Your task to perform on an android device: Is it going to rain today? Image 0: 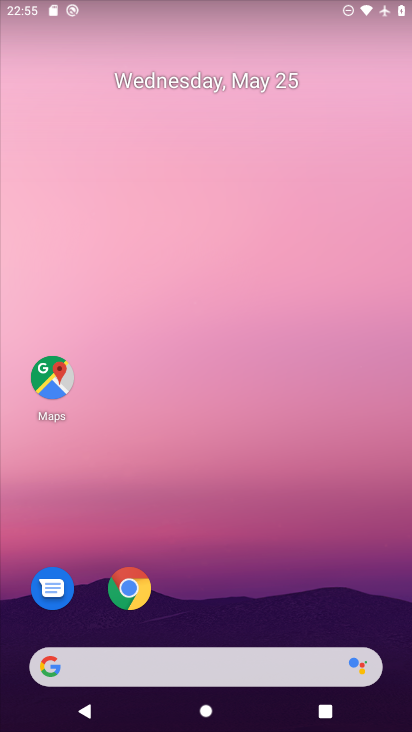
Step 0: drag from (284, 385) to (300, 171)
Your task to perform on an android device: Is it going to rain today? Image 1: 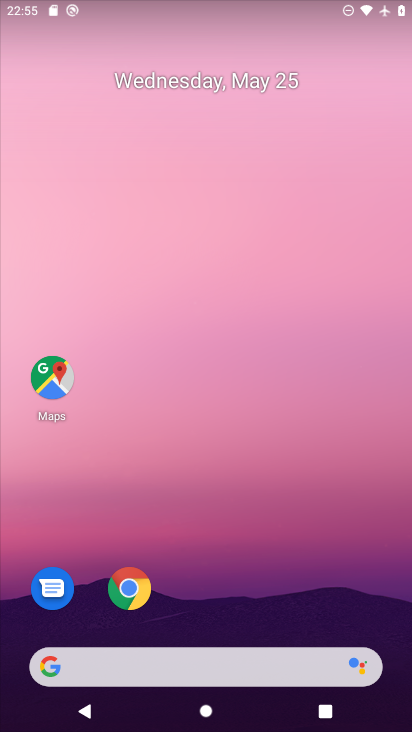
Step 1: drag from (226, 599) to (220, 82)
Your task to perform on an android device: Is it going to rain today? Image 2: 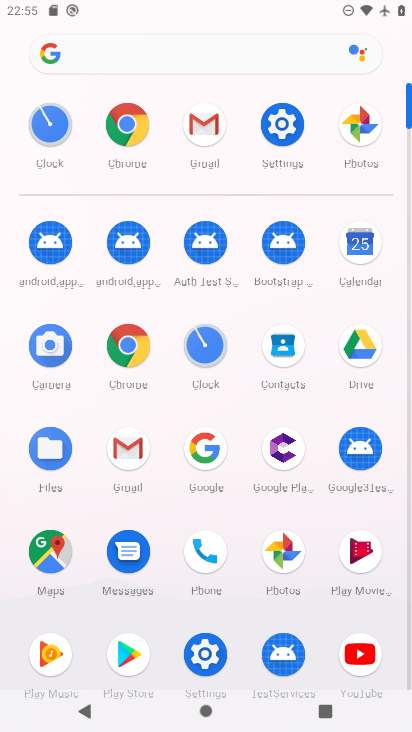
Step 2: click (124, 347)
Your task to perform on an android device: Is it going to rain today? Image 3: 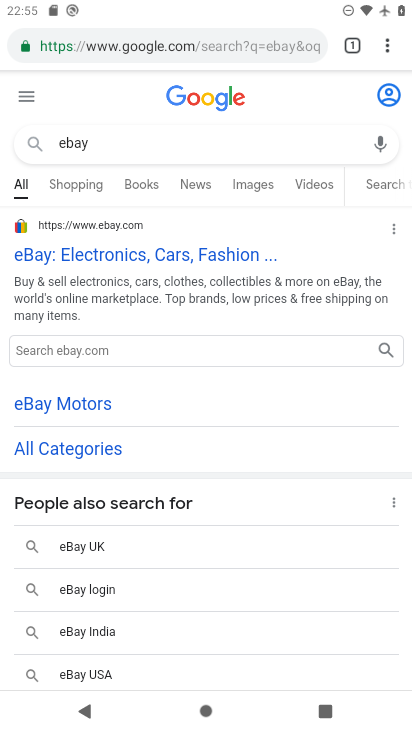
Step 3: click (123, 45)
Your task to perform on an android device: Is it going to rain today? Image 4: 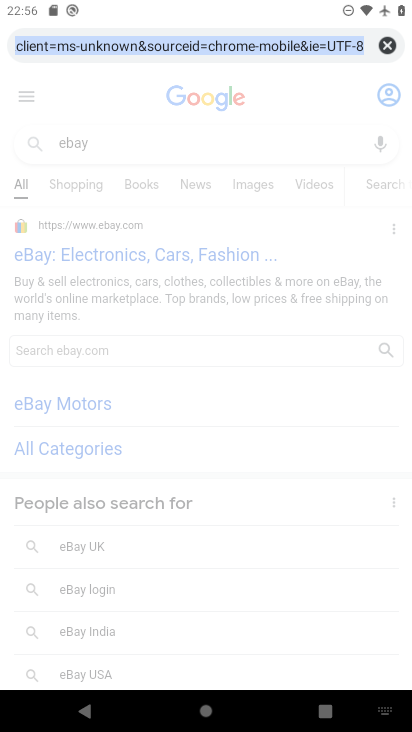
Step 4: type "weather"
Your task to perform on an android device: Is it going to rain today? Image 5: 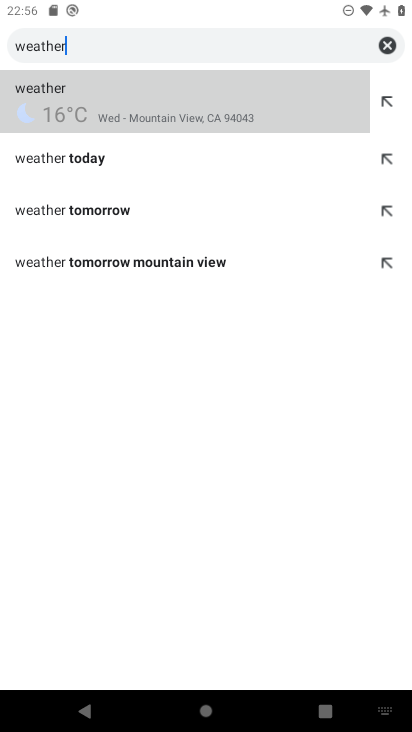
Step 5: click (127, 89)
Your task to perform on an android device: Is it going to rain today? Image 6: 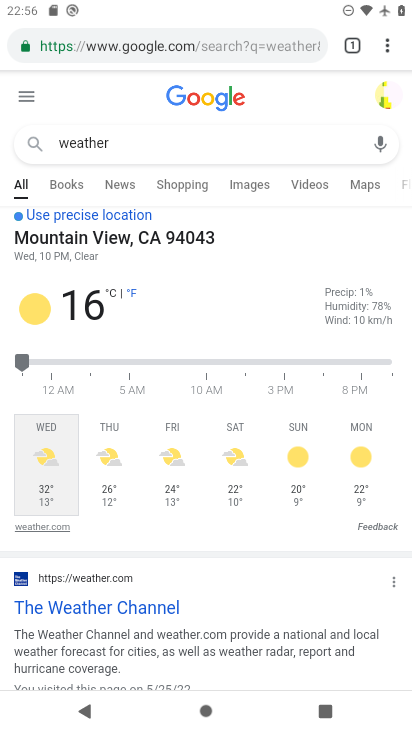
Step 6: task complete